Your task to perform on an android device: What's on my calendar today? Image 0: 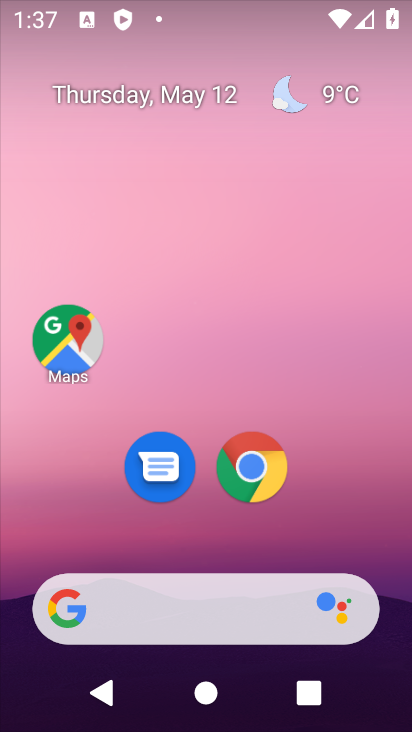
Step 0: drag from (327, 496) to (320, 294)
Your task to perform on an android device: What's on my calendar today? Image 1: 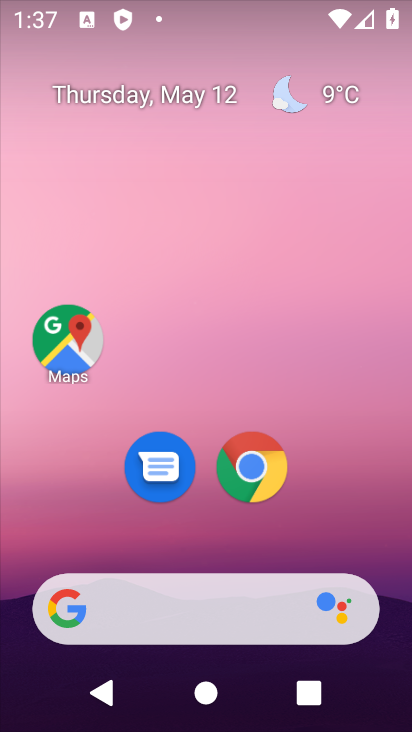
Step 1: drag from (310, 528) to (336, 274)
Your task to perform on an android device: What's on my calendar today? Image 2: 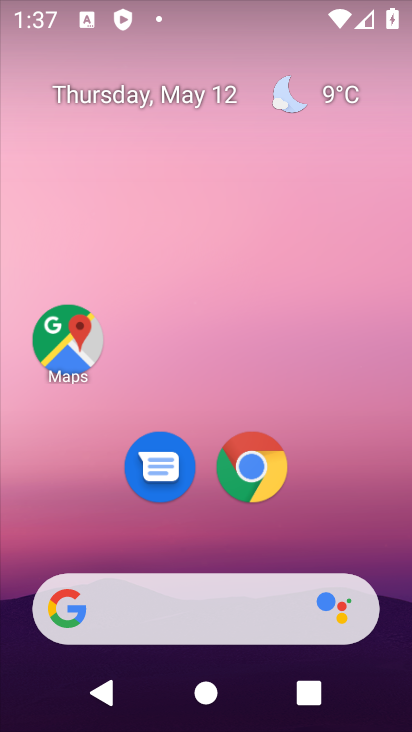
Step 2: drag from (312, 526) to (304, 90)
Your task to perform on an android device: What's on my calendar today? Image 3: 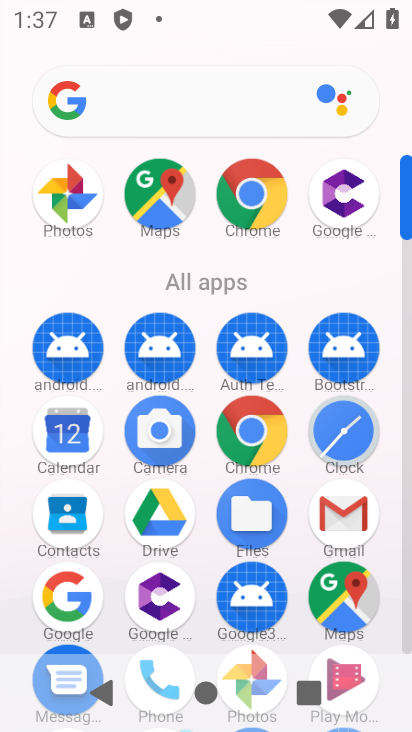
Step 3: click (59, 428)
Your task to perform on an android device: What's on my calendar today? Image 4: 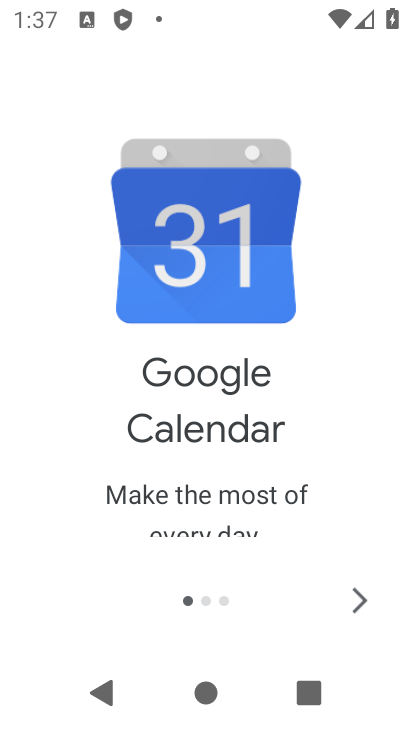
Step 4: click (361, 606)
Your task to perform on an android device: What's on my calendar today? Image 5: 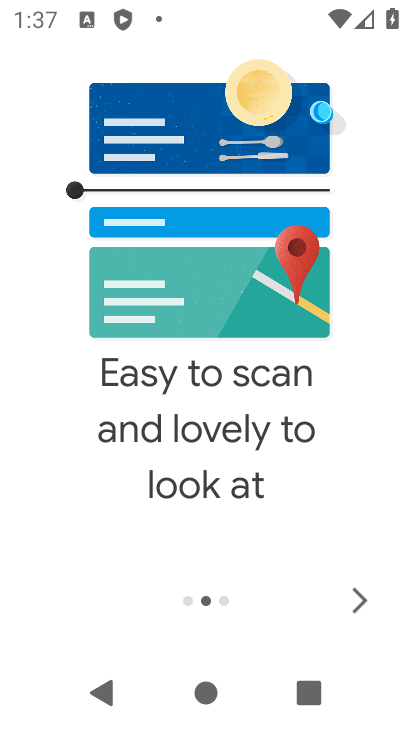
Step 5: click (357, 605)
Your task to perform on an android device: What's on my calendar today? Image 6: 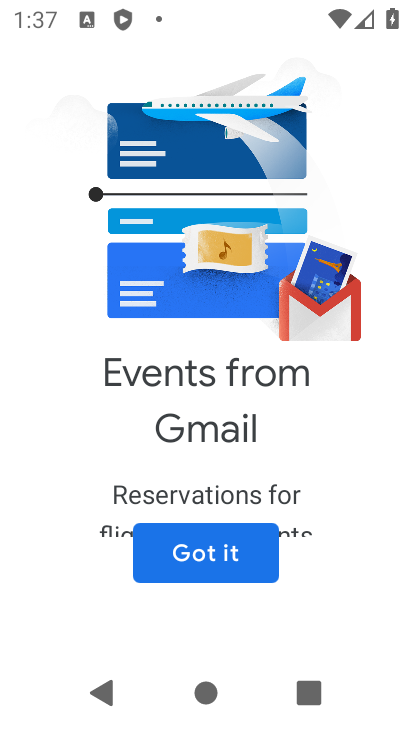
Step 6: click (210, 588)
Your task to perform on an android device: What's on my calendar today? Image 7: 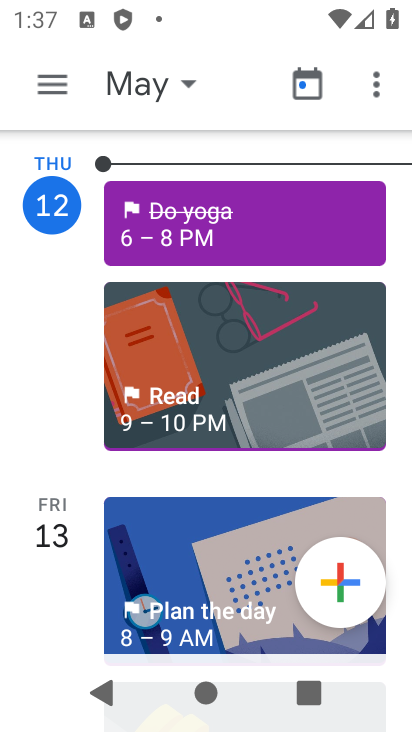
Step 7: click (62, 89)
Your task to perform on an android device: What's on my calendar today? Image 8: 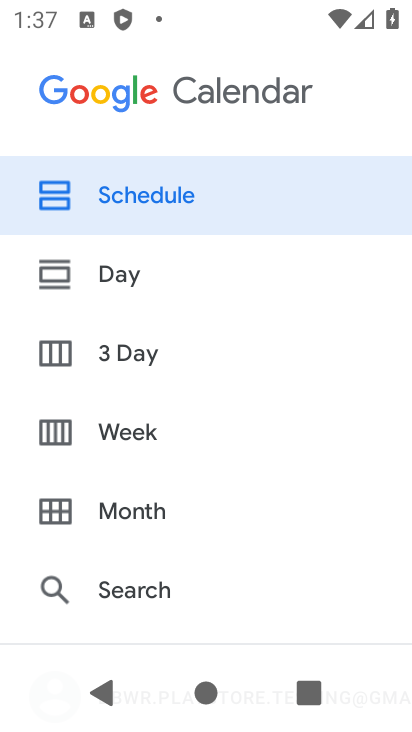
Step 8: click (185, 479)
Your task to perform on an android device: What's on my calendar today? Image 9: 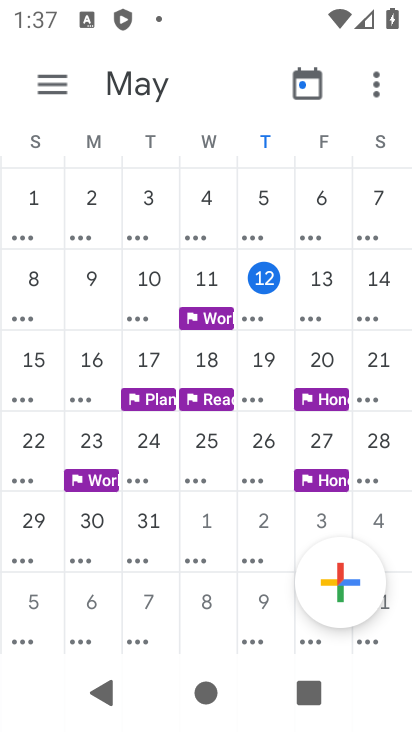
Step 9: click (273, 276)
Your task to perform on an android device: What's on my calendar today? Image 10: 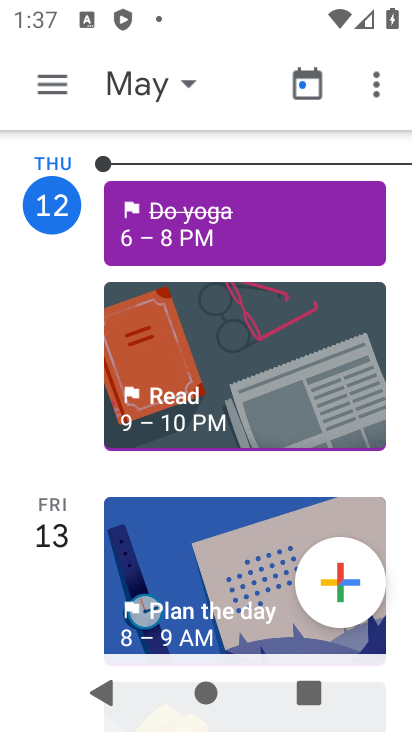
Step 10: task complete